Your task to perform on an android device: manage bookmarks in the chrome app Image 0: 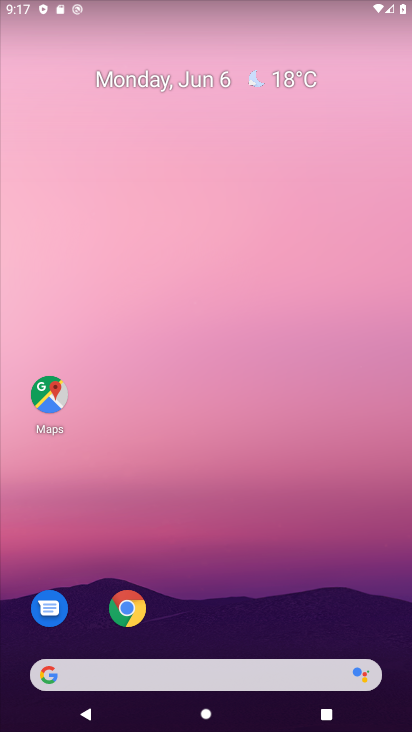
Step 0: click (128, 608)
Your task to perform on an android device: manage bookmarks in the chrome app Image 1: 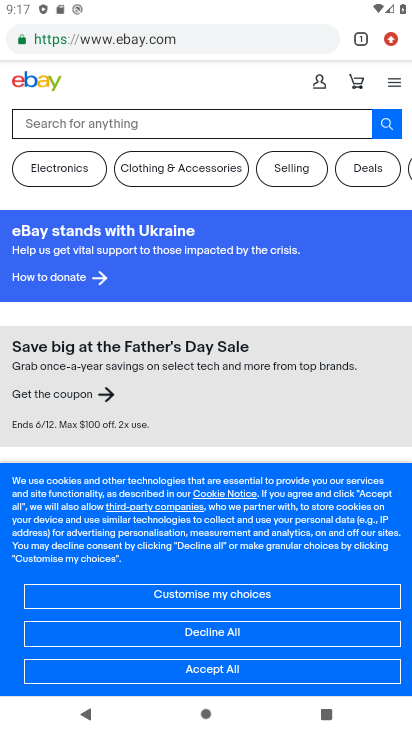
Step 1: click (391, 41)
Your task to perform on an android device: manage bookmarks in the chrome app Image 2: 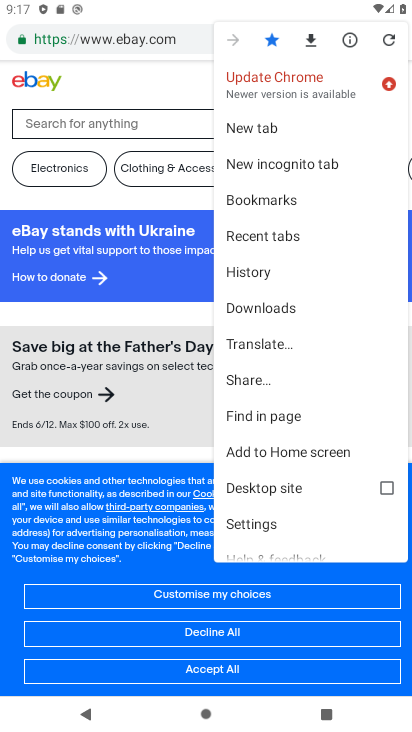
Step 2: click (290, 202)
Your task to perform on an android device: manage bookmarks in the chrome app Image 3: 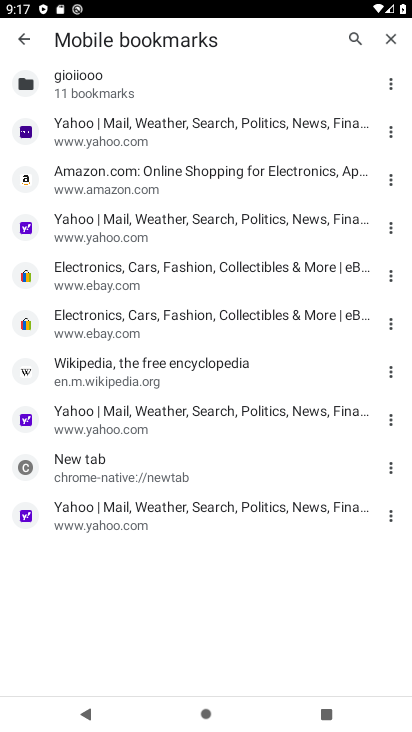
Step 3: click (390, 85)
Your task to perform on an android device: manage bookmarks in the chrome app Image 4: 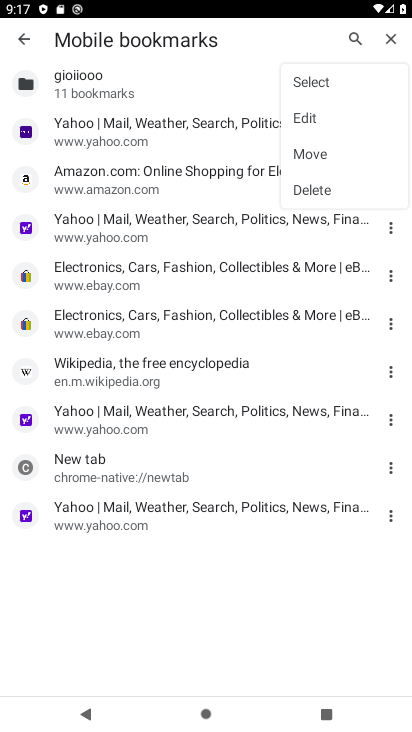
Step 4: click (324, 123)
Your task to perform on an android device: manage bookmarks in the chrome app Image 5: 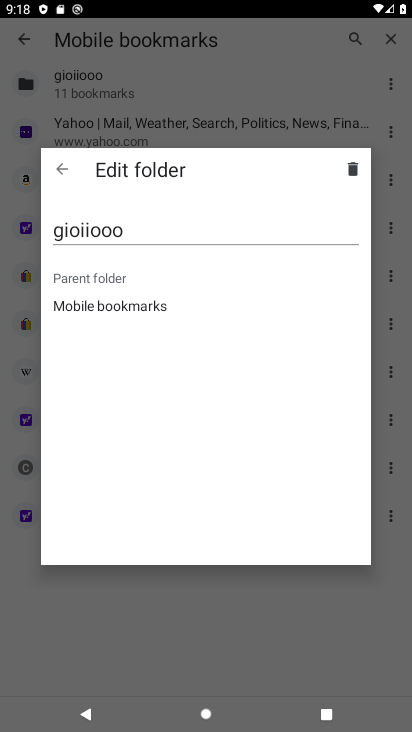
Step 5: click (352, 164)
Your task to perform on an android device: manage bookmarks in the chrome app Image 6: 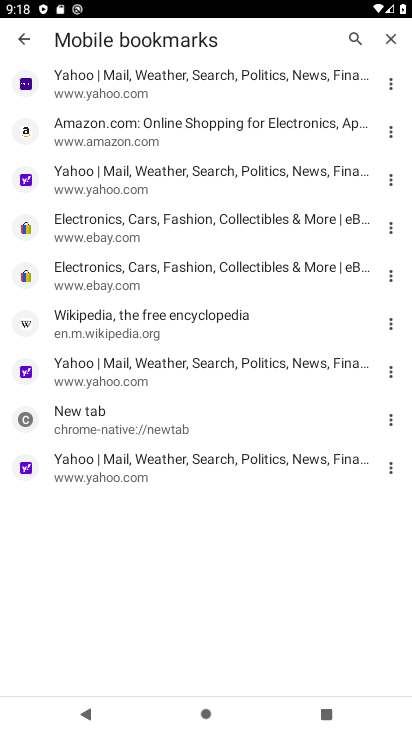
Step 6: task complete